Your task to perform on an android device: all mails in gmail Image 0: 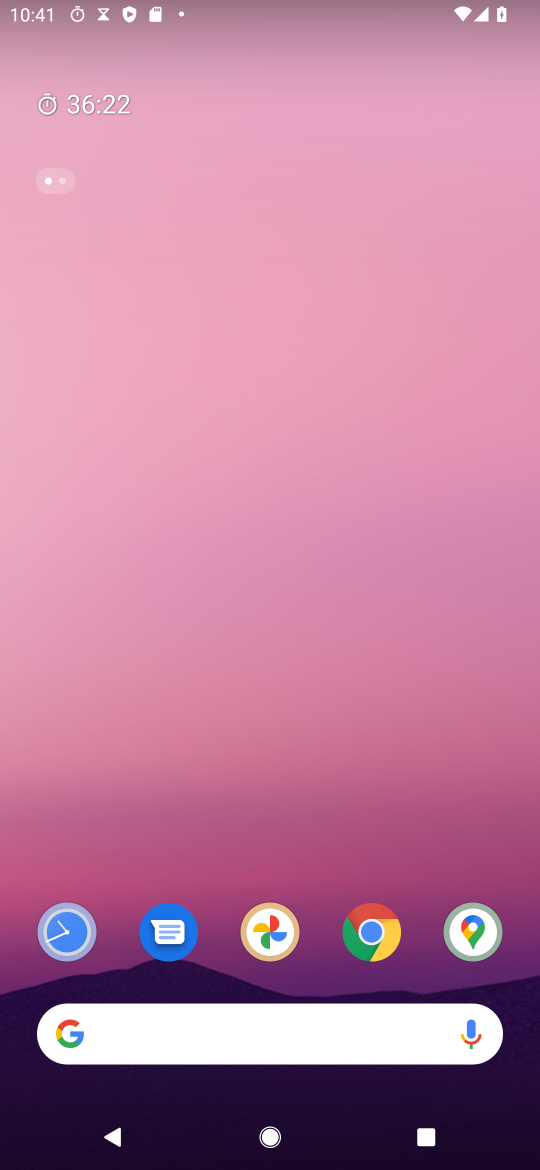
Step 0: drag from (306, 850) to (186, 94)
Your task to perform on an android device: all mails in gmail Image 1: 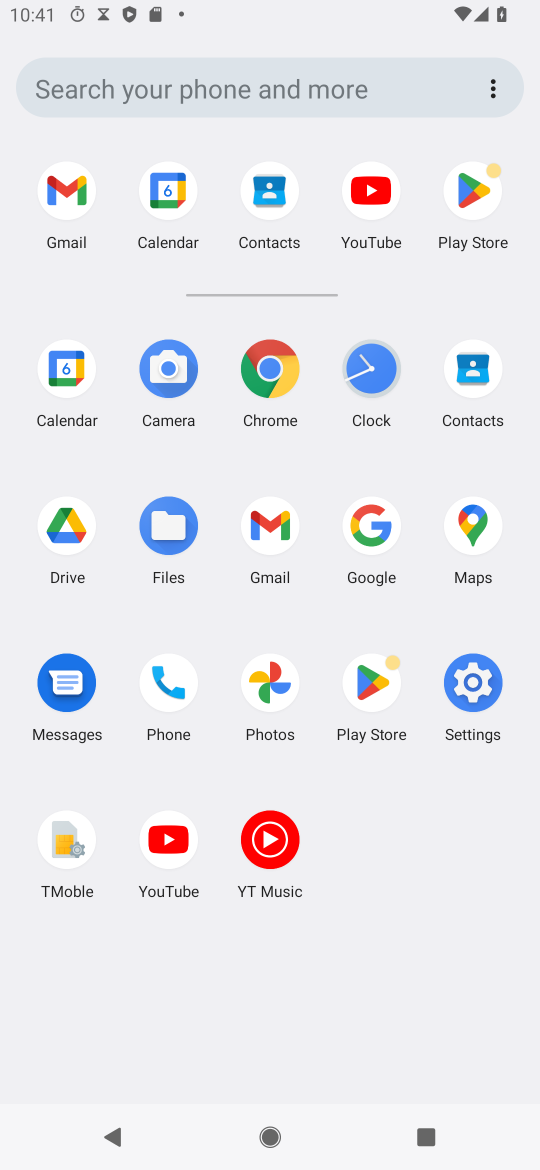
Step 1: click (69, 202)
Your task to perform on an android device: all mails in gmail Image 2: 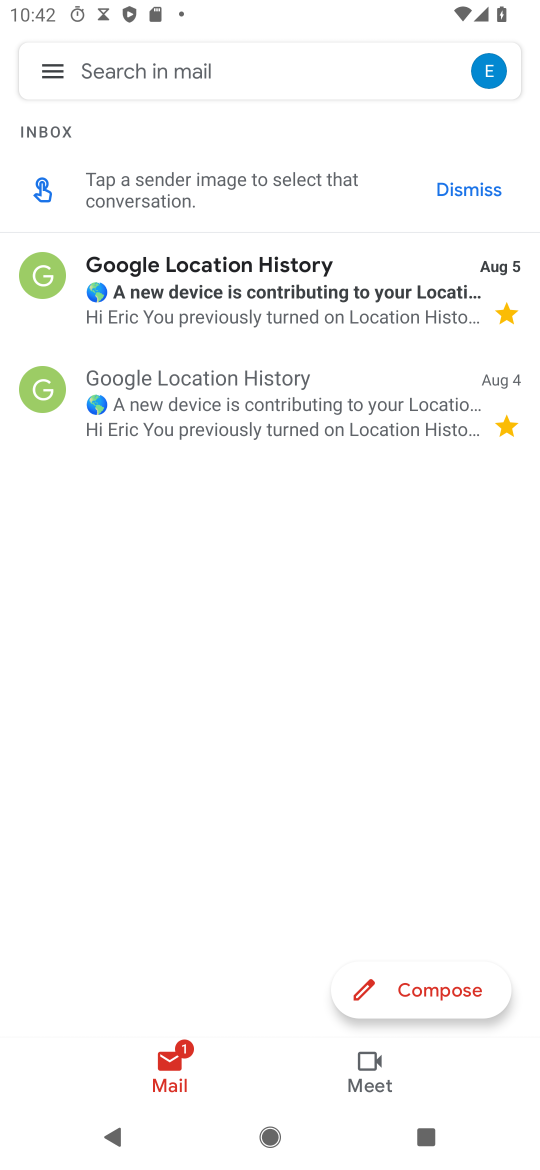
Step 2: click (57, 68)
Your task to perform on an android device: all mails in gmail Image 3: 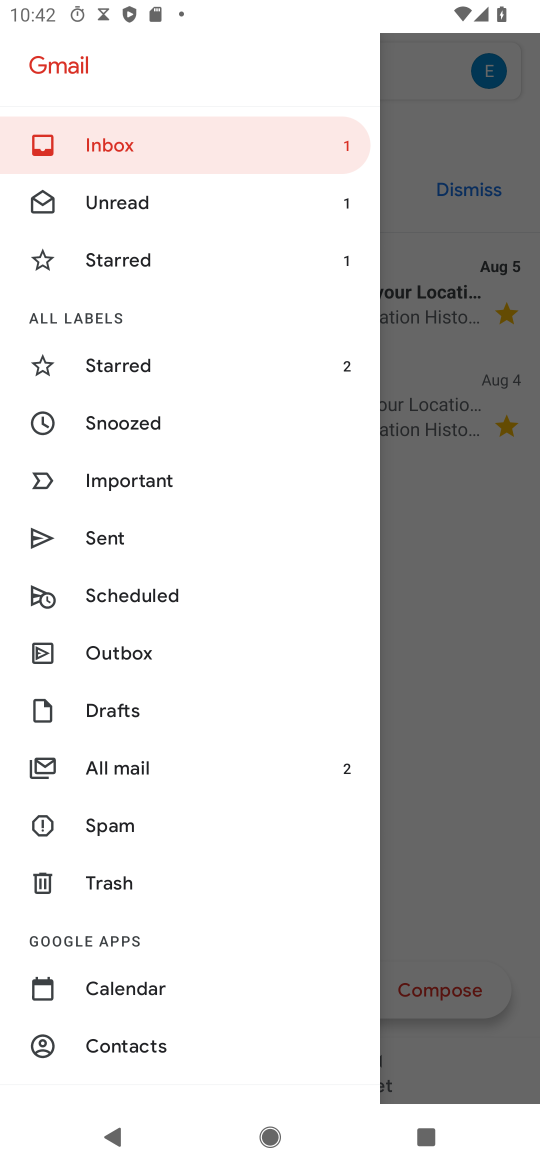
Step 3: click (167, 759)
Your task to perform on an android device: all mails in gmail Image 4: 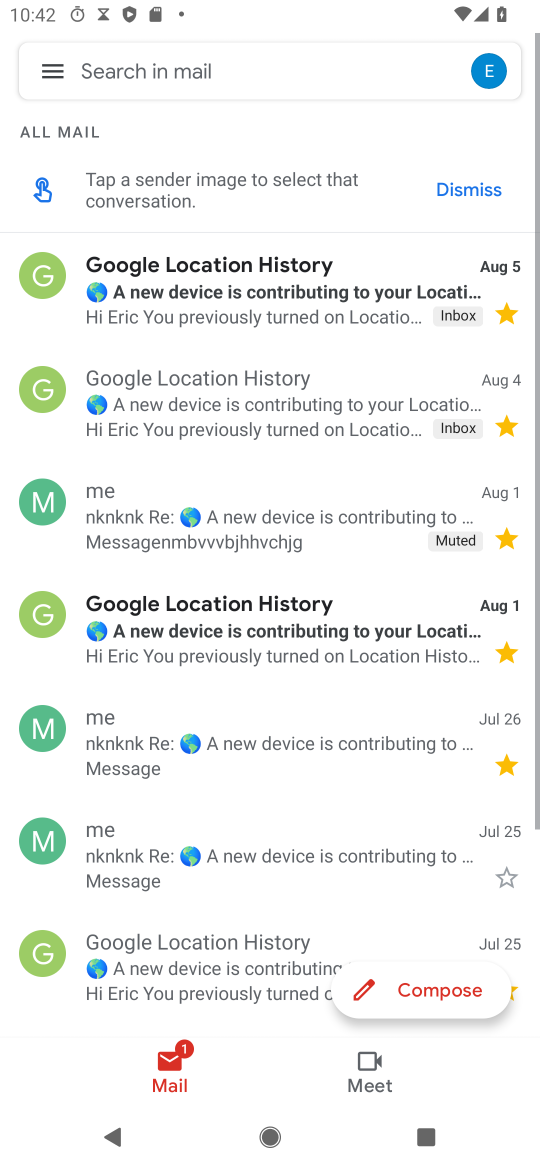
Step 4: task complete